Your task to perform on an android device: install app "Facebook" Image 0: 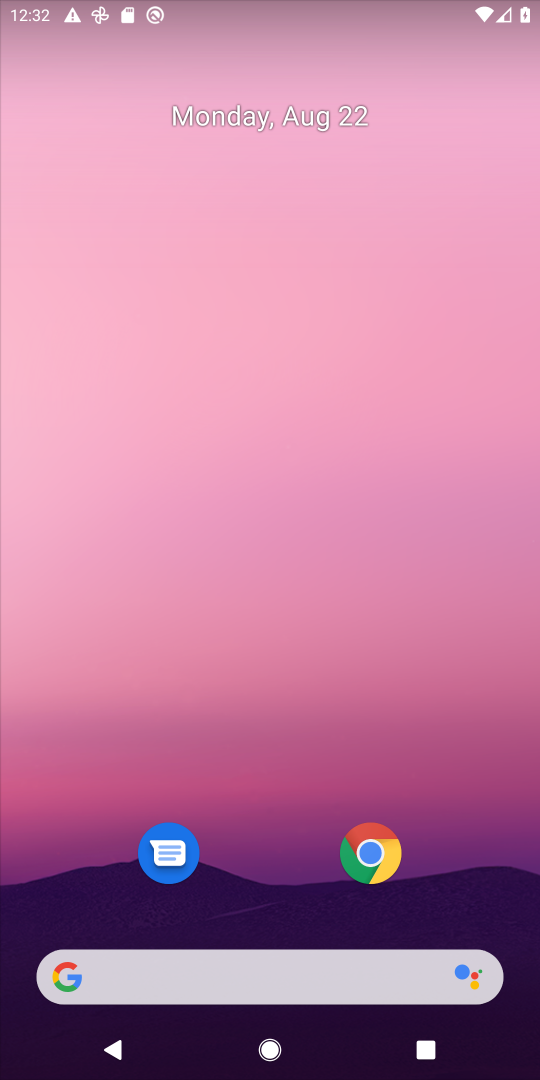
Step 0: drag from (175, 957) to (245, 196)
Your task to perform on an android device: install app "Facebook" Image 1: 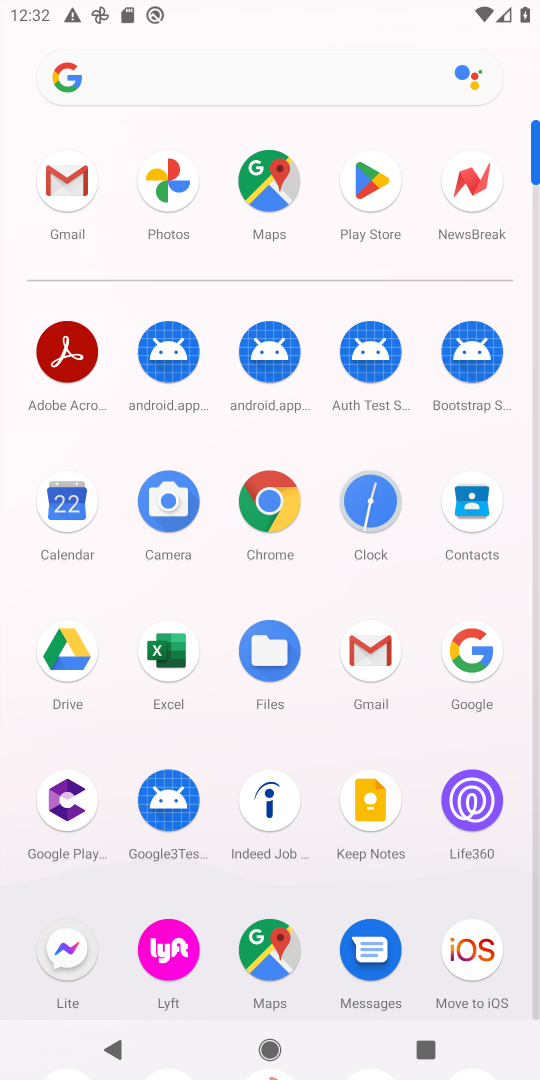
Step 1: click (372, 174)
Your task to perform on an android device: install app "Facebook" Image 2: 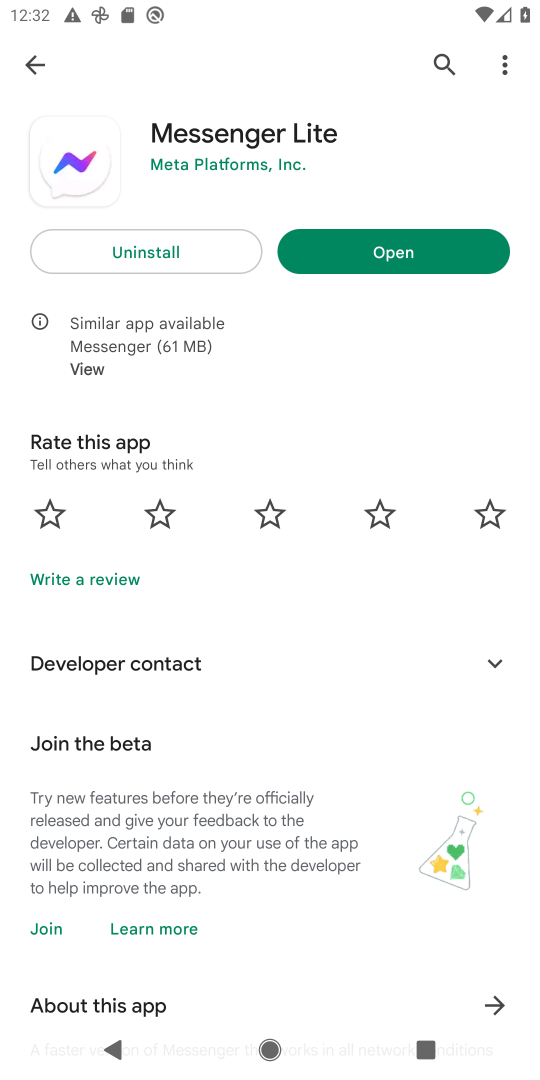
Step 2: click (46, 45)
Your task to perform on an android device: install app "Facebook" Image 3: 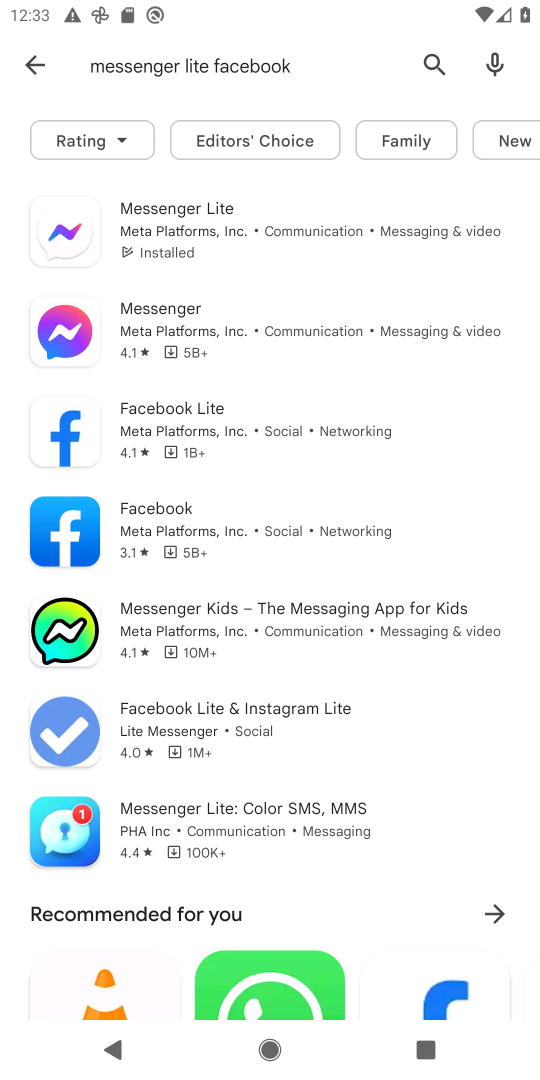
Step 3: click (39, 50)
Your task to perform on an android device: install app "Facebook" Image 4: 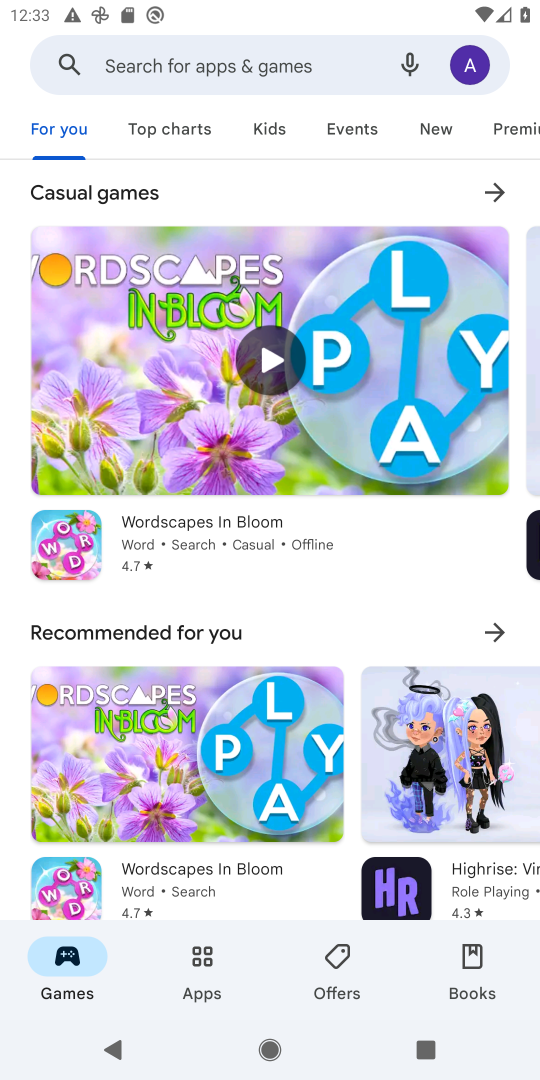
Step 4: click (184, 67)
Your task to perform on an android device: install app "Facebook" Image 5: 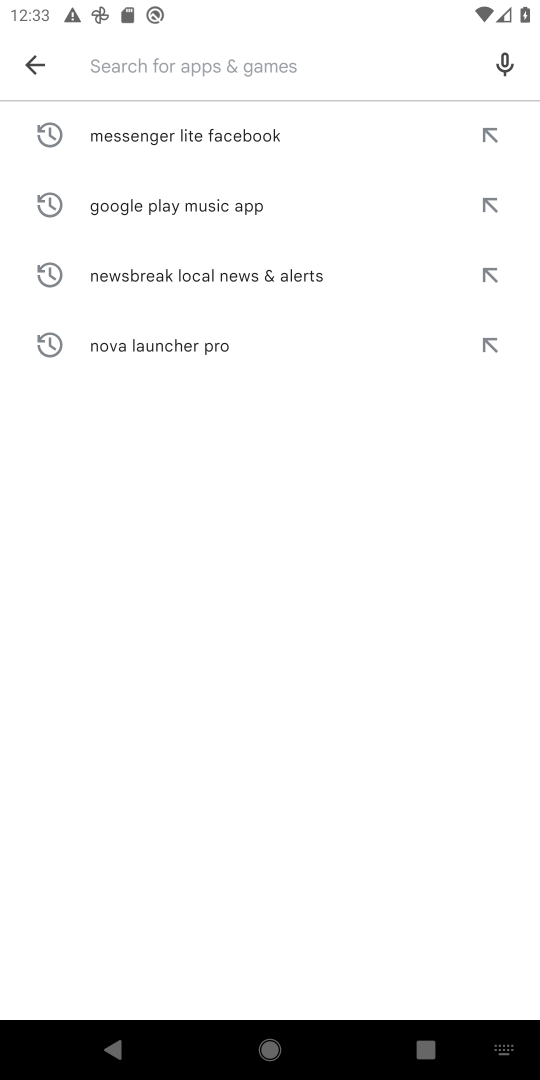
Step 5: type "Facebook "
Your task to perform on an android device: install app "Facebook" Image 6: 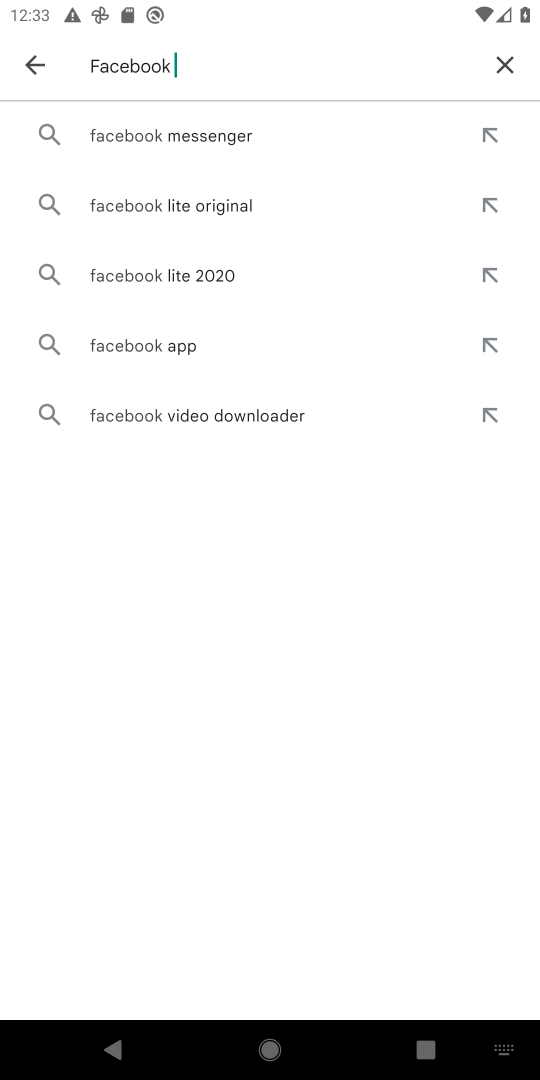
Step 6: click (135, 325)
Your task to perform on an android device: install app "Facebook" Image 7: 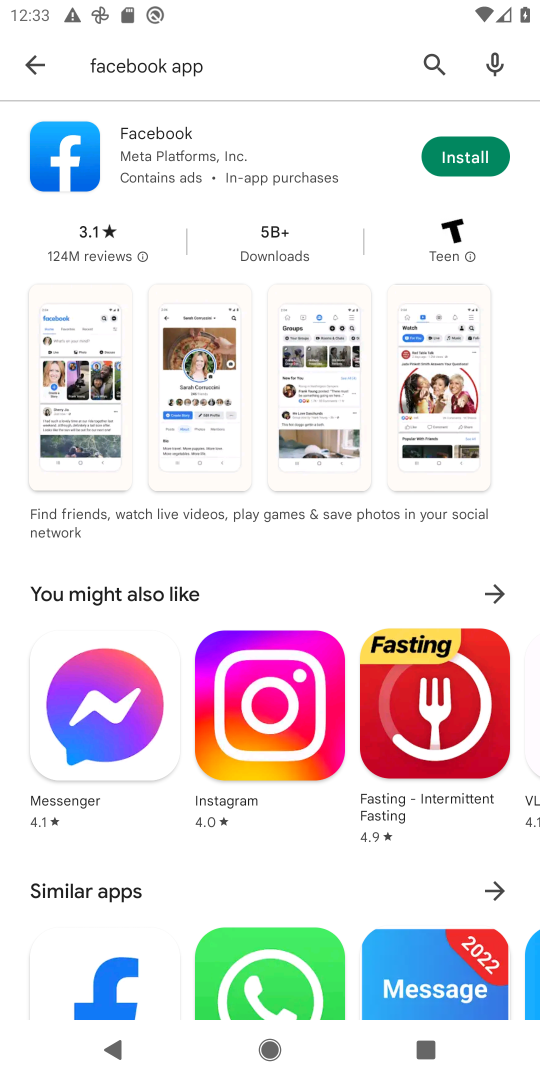
Step 7: click (475, 151)
Your task to perform on an android device: install app "Facebook" Image 8: 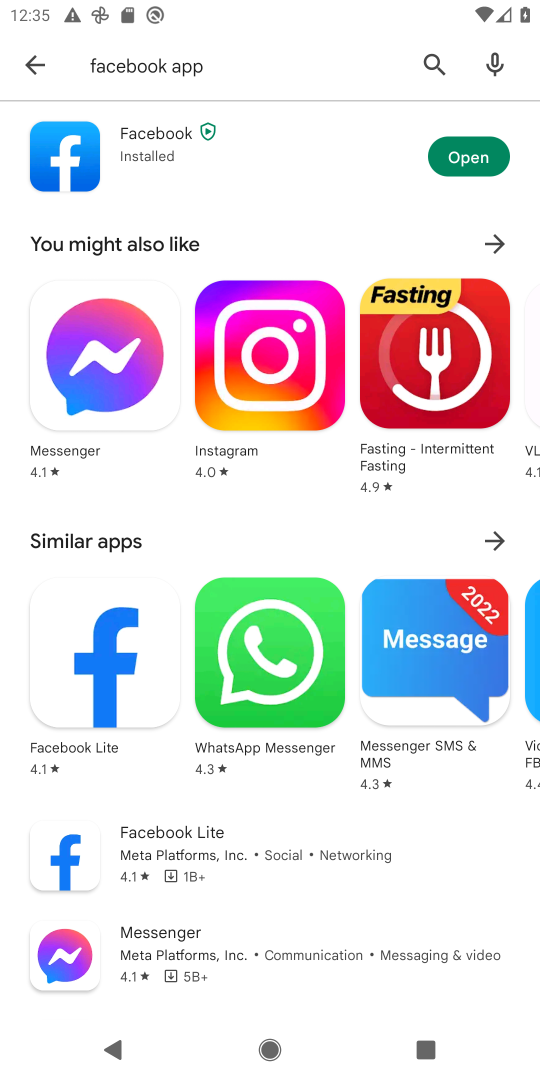
Step 8: click (440, 148)
Your task to perform on an android device: install app "Facebook" Image 9: 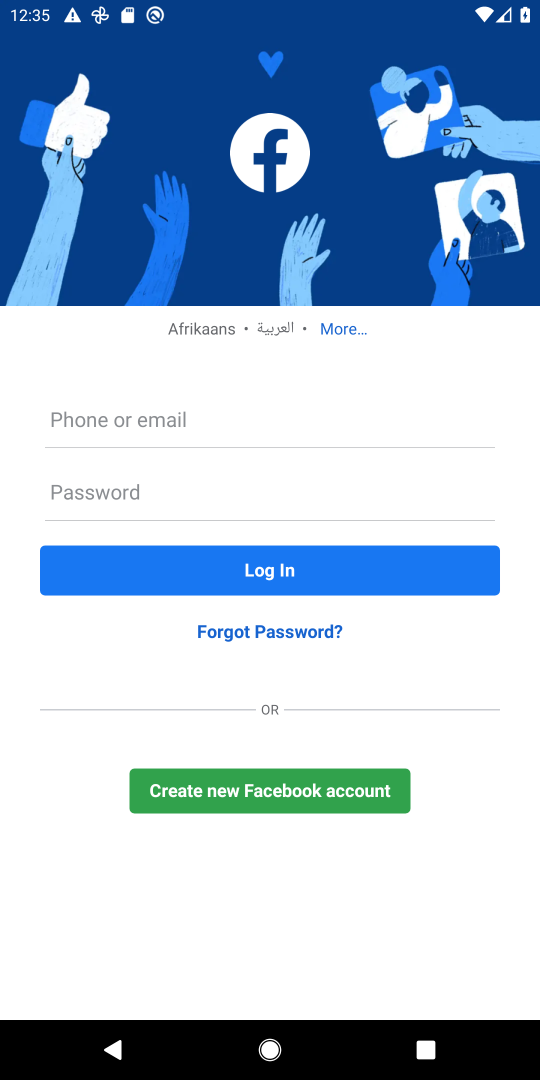
Step 9: task complete